Your task to perform on an android device: open wifi settings Image 0: 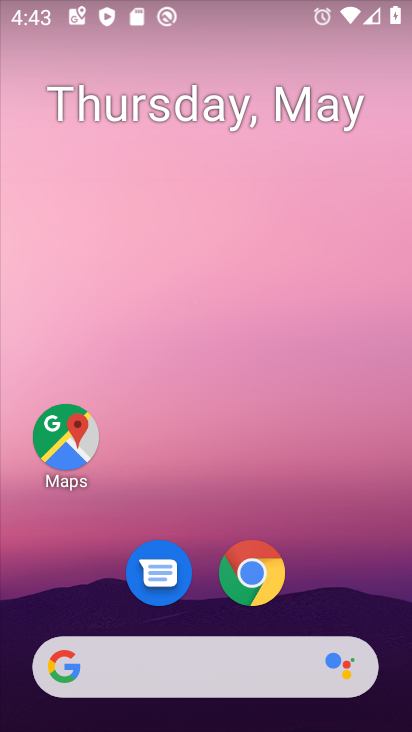
Step 0: drag from (314, 608) to (250, 91)
Your task to perform on an android device: open wifi settings Image 1: 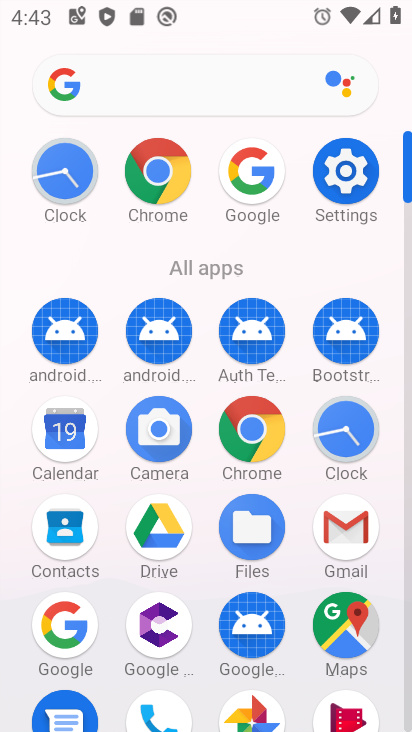
Step 1: click (349, 182)
Your task to perform on an android device: open wifi settings Image 2: 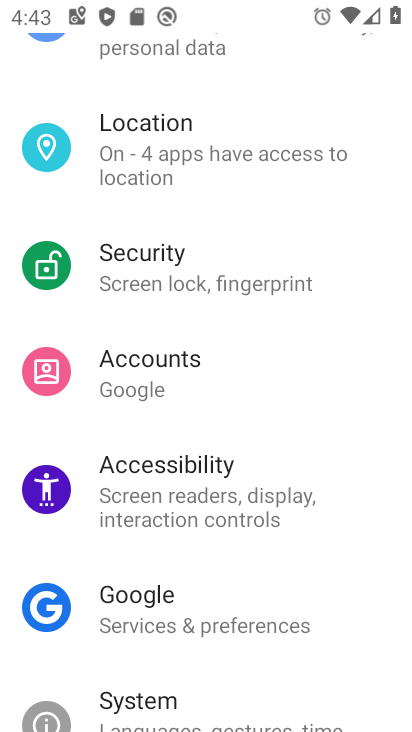
Step 2: drag from (284, 203) to (183, 686)
Your task to perform on an android device: open wifi settings Image 3: 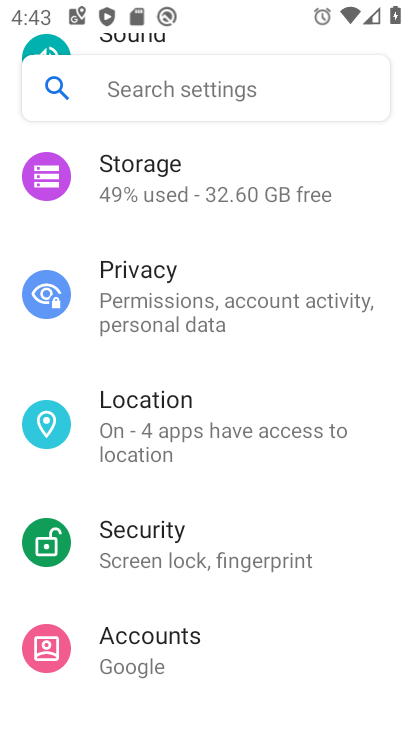
Step 3: drag from (188, 179) to (90, 528)
Your task to perform on an android device: open wifi settings Image 4: 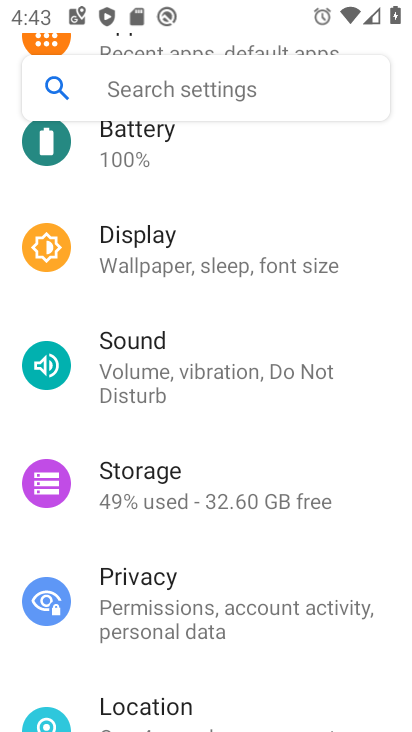
Step 4: drag from (188, 268) to (148, 694)
Your task to perform on an android device: open wifi settings Image 5: 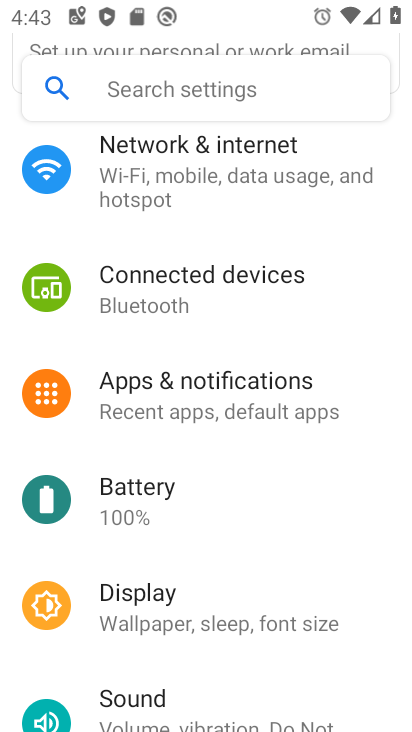
Step 5: click (185, 195)
Your task to perform on an android device: open wifi settings Image 6: 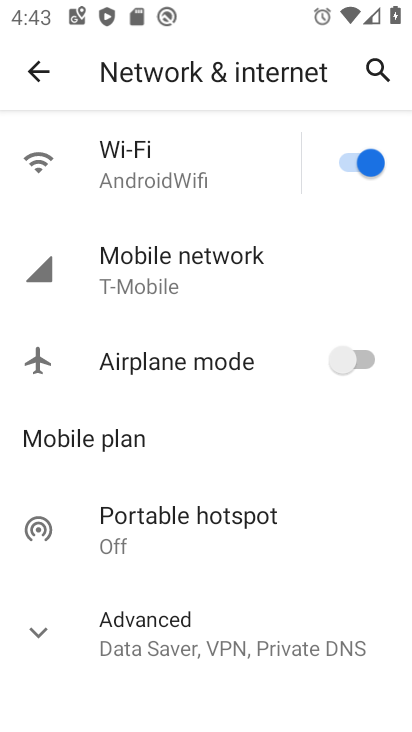
Step 6: click (140, 171)
Your task to perform on an android device: open wifi settings Image 7: 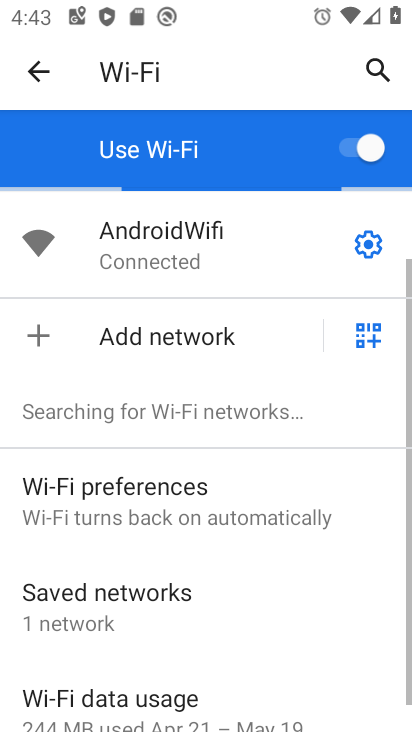
Step 7: task complete